Your task to perform on an android device: install app "Venmo" Image 0: 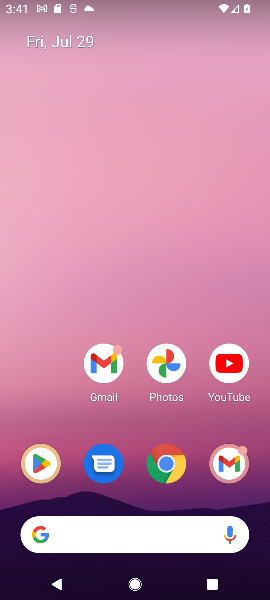
Step 0: drag from (170, 529) to (227, 13)
Your task to perform on an android device: install app "Venmo" Image 1: 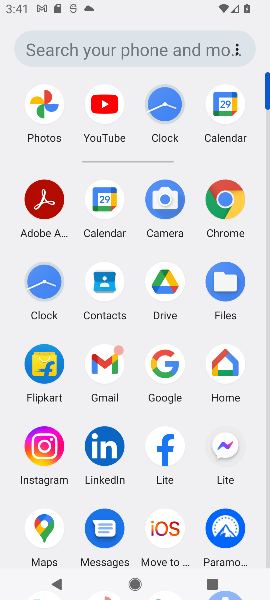
Step 1: drag from (192, 255) to (204, 117)
Your task to perform on an android device: install app "Venmo" Image 2: 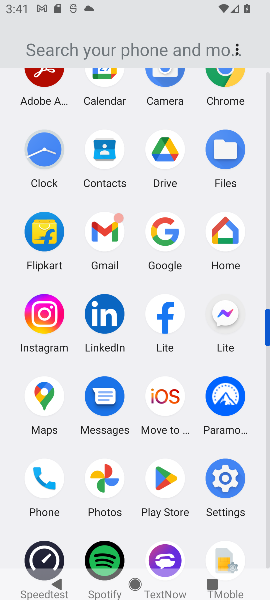
Step 2: click (165, 481)
Your task to perform on an android device: install app "Venmo" Image 3: 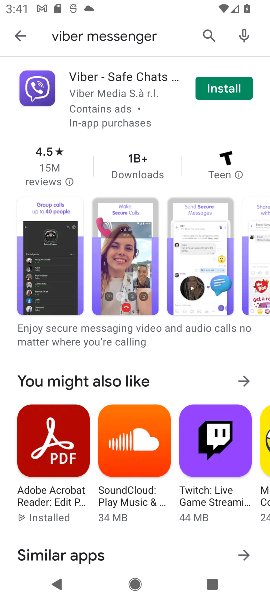
Step 3: click (206, 33)
Your task to perform on an android device: install app "Venmo" Image 4: 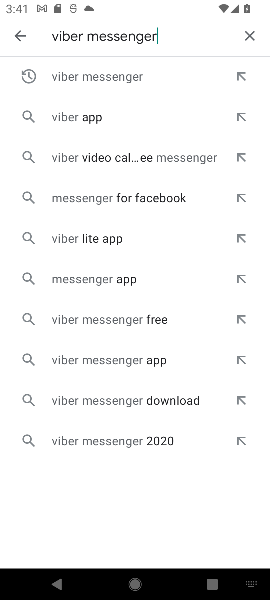
Step 4: click (250, 36)
Your task to perform on an android device: install app "Venmo" Image 5: 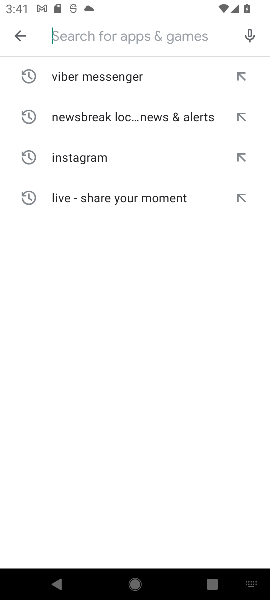
Step 5: type "Venmo"
Your task to perform on an android device: install app "Venmo" Image 6: 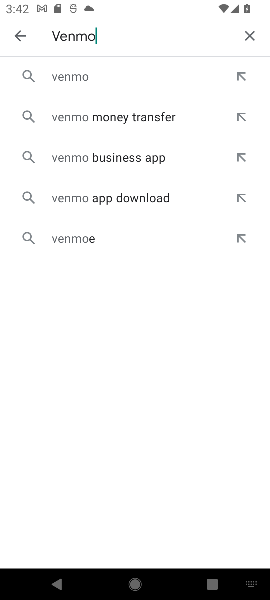
Step 6: click (80, 77)
Your task to perform on an android device: install app "Venmo" Image 7: 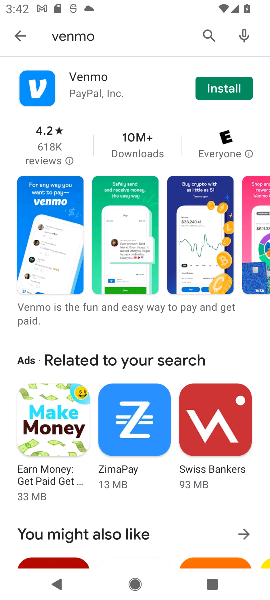
Step 7: click (213, 89)
Your task to perform on an android device: install app "Venmo" Image 8: 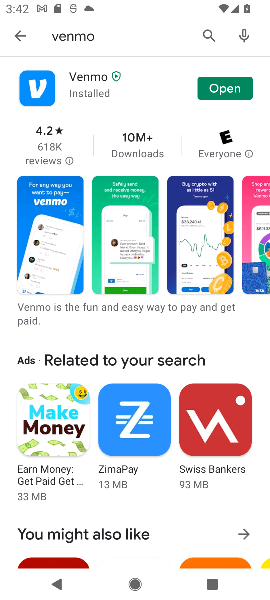
Step 8: task complete